Your task to perform on an android device: Open Chrome and go to the settings page Image 0: 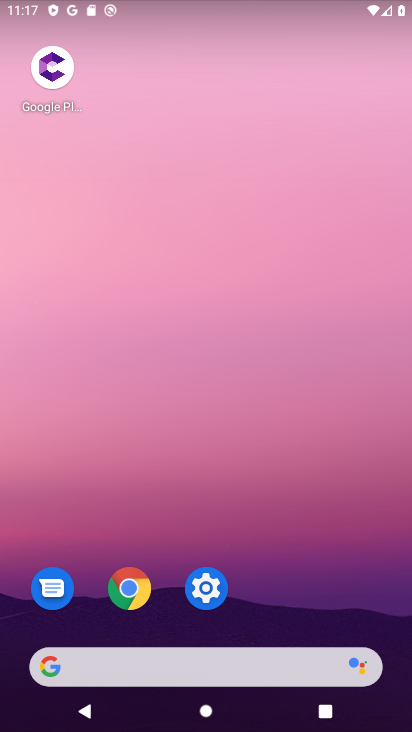
Step 0: press home button
Your task to perform on an android device: Open Chrome and go to the settings page Image 1: 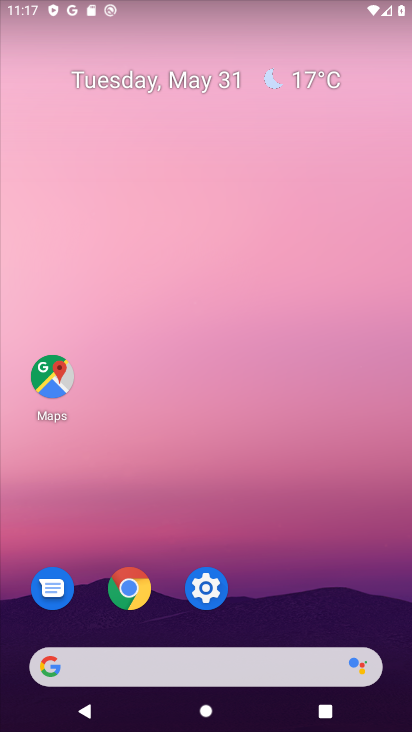
Step 1: click (131, 578)
Your task to perform on an android device: Open Chrome and go to the settings page Image 2: 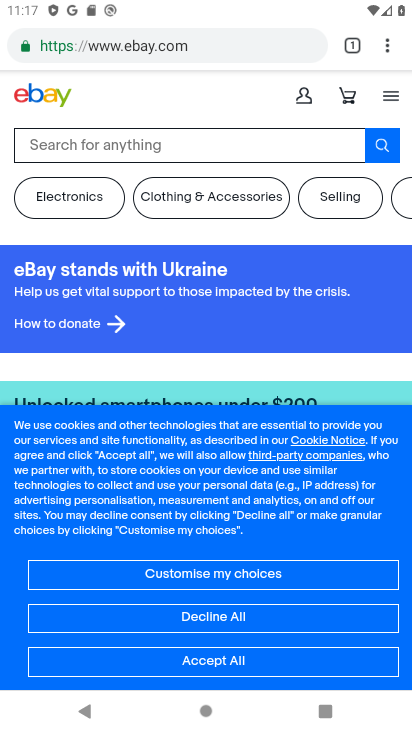
Step 2: click (394, 53)
Your task to perform on an android device: Open Chrome and go to the settings page Image 3: 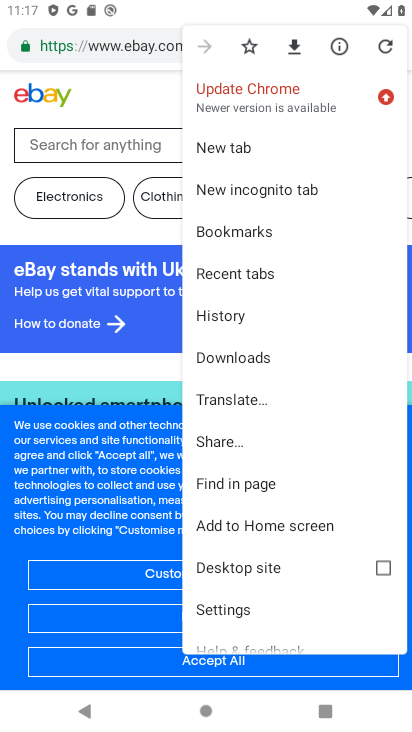
Step 3: click (234, 612)
Your task to perform on an android device: Open Chrome and go to the settings page Image 4: 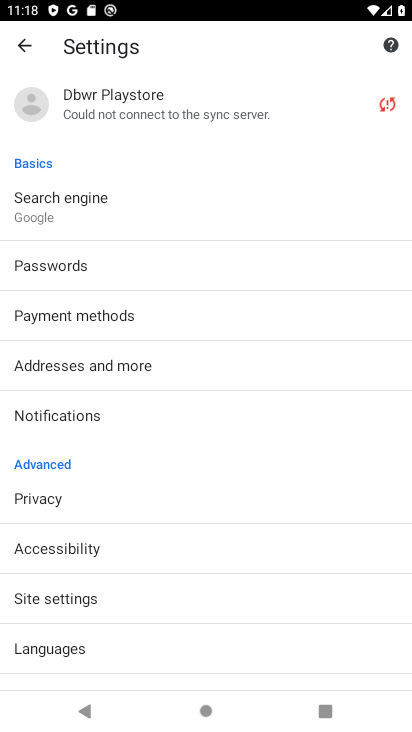
Step 4: task complete